Your task to perform on an android device: open chrome privacy settings Image 0: 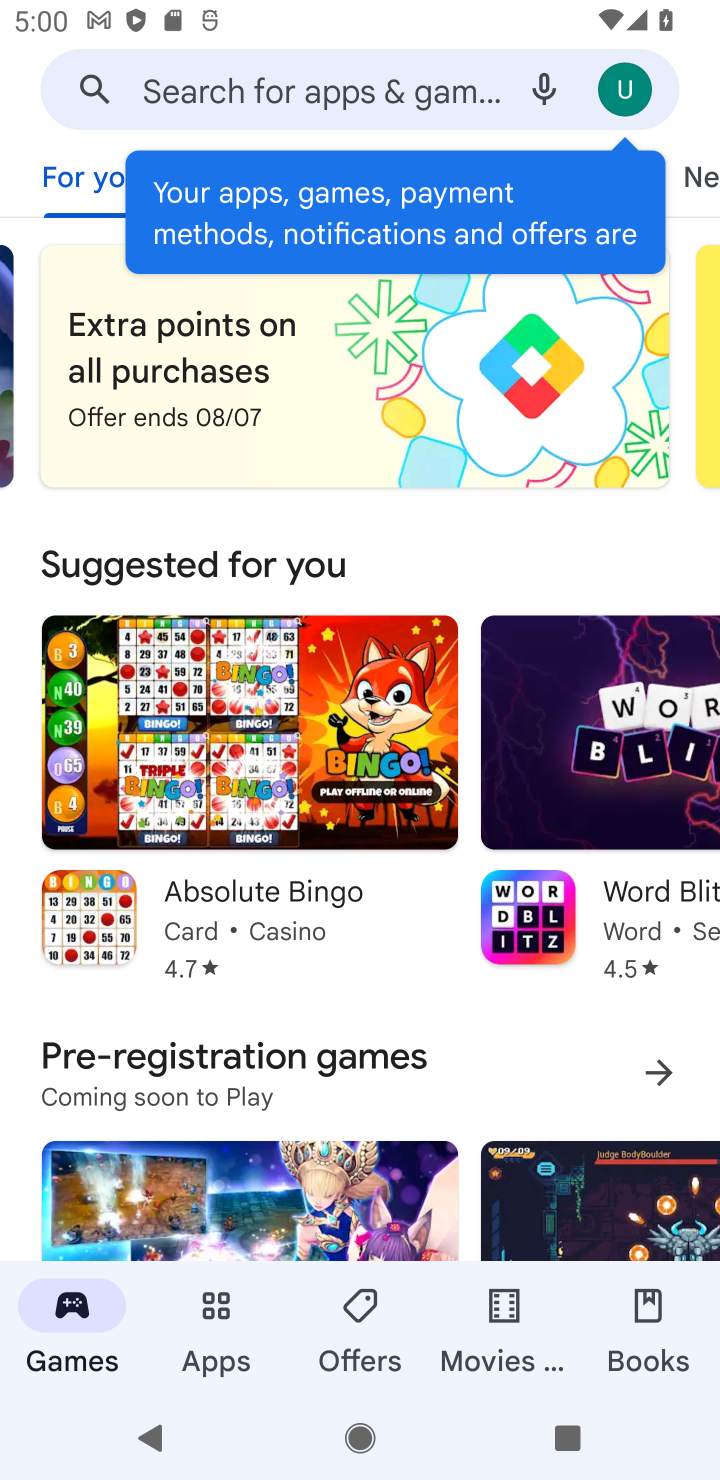
Step 0: press home button
Your task to perform on an android device: open chrome privacy settings Image 1: 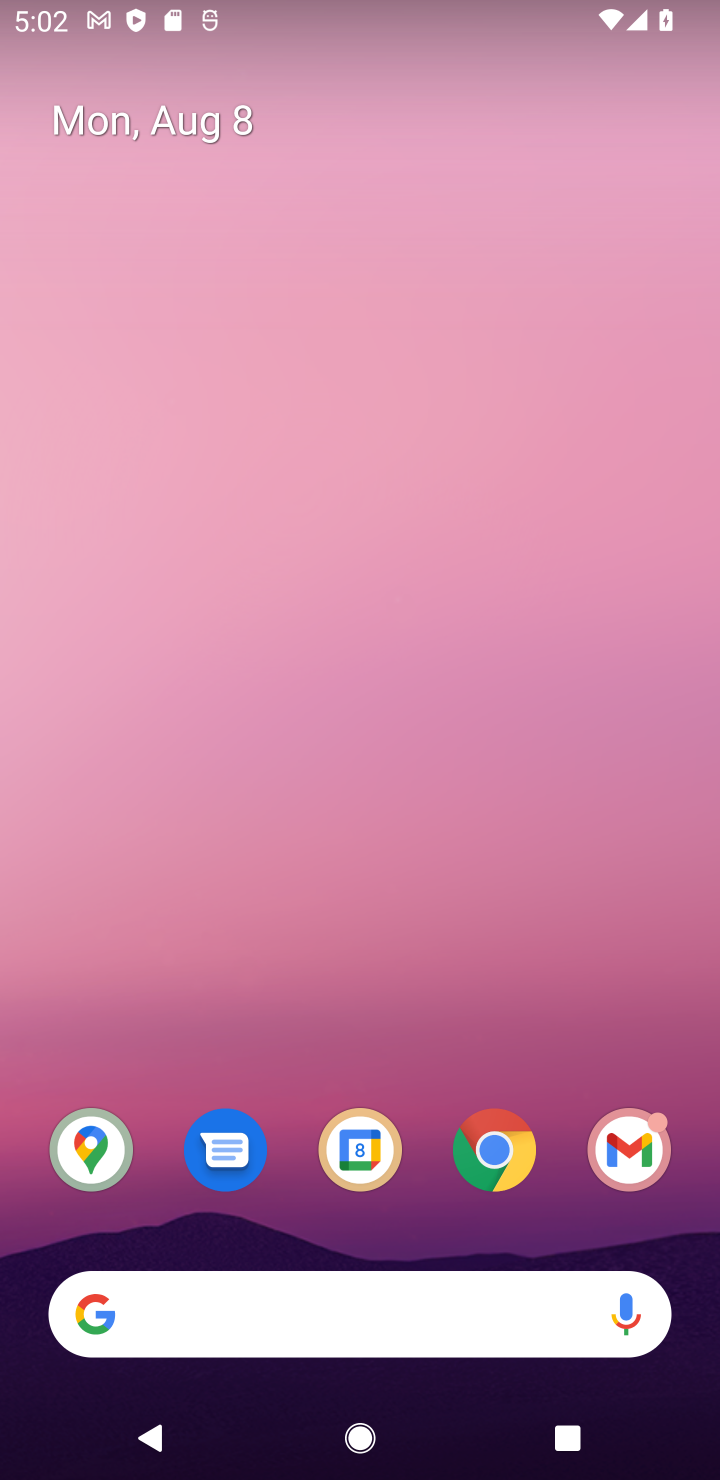
Step 1: click (493, 1174)
Your task to perform on an android device: open chrome privacy settings Image 2: 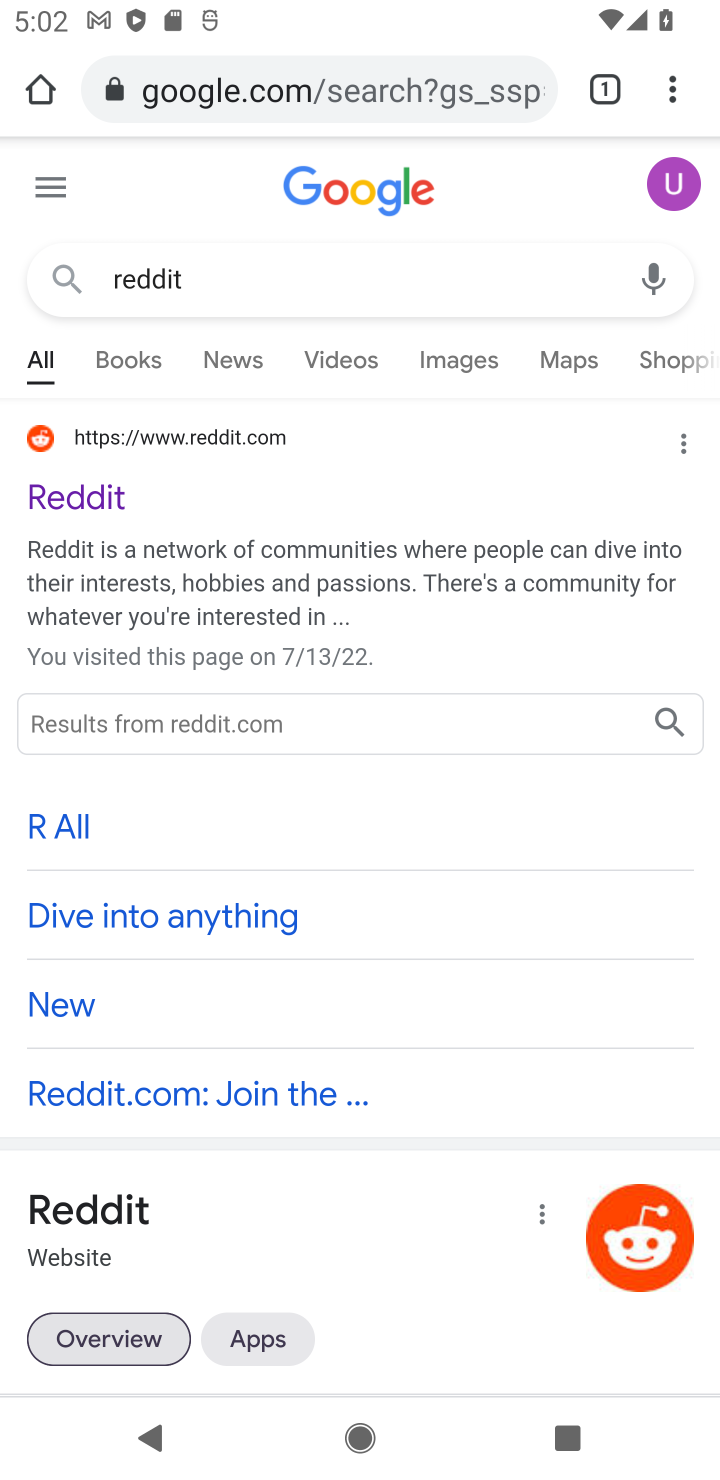
Step 2: click (670, 99)
Your task to perform on an android device: open chrome privacy settings Image 3: 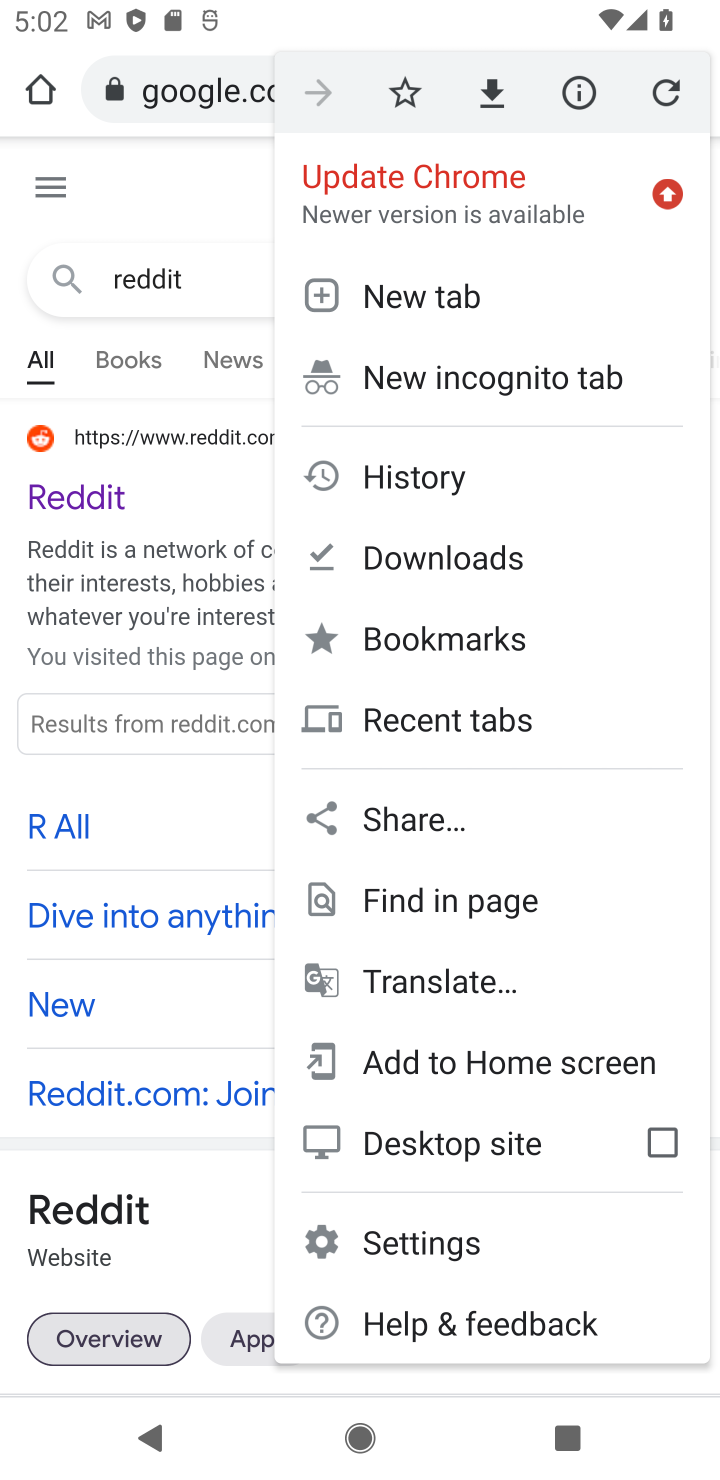
Step 3: click (496, 1222)
Your task to perform on an android device: open chrome privacy settings Image 4: 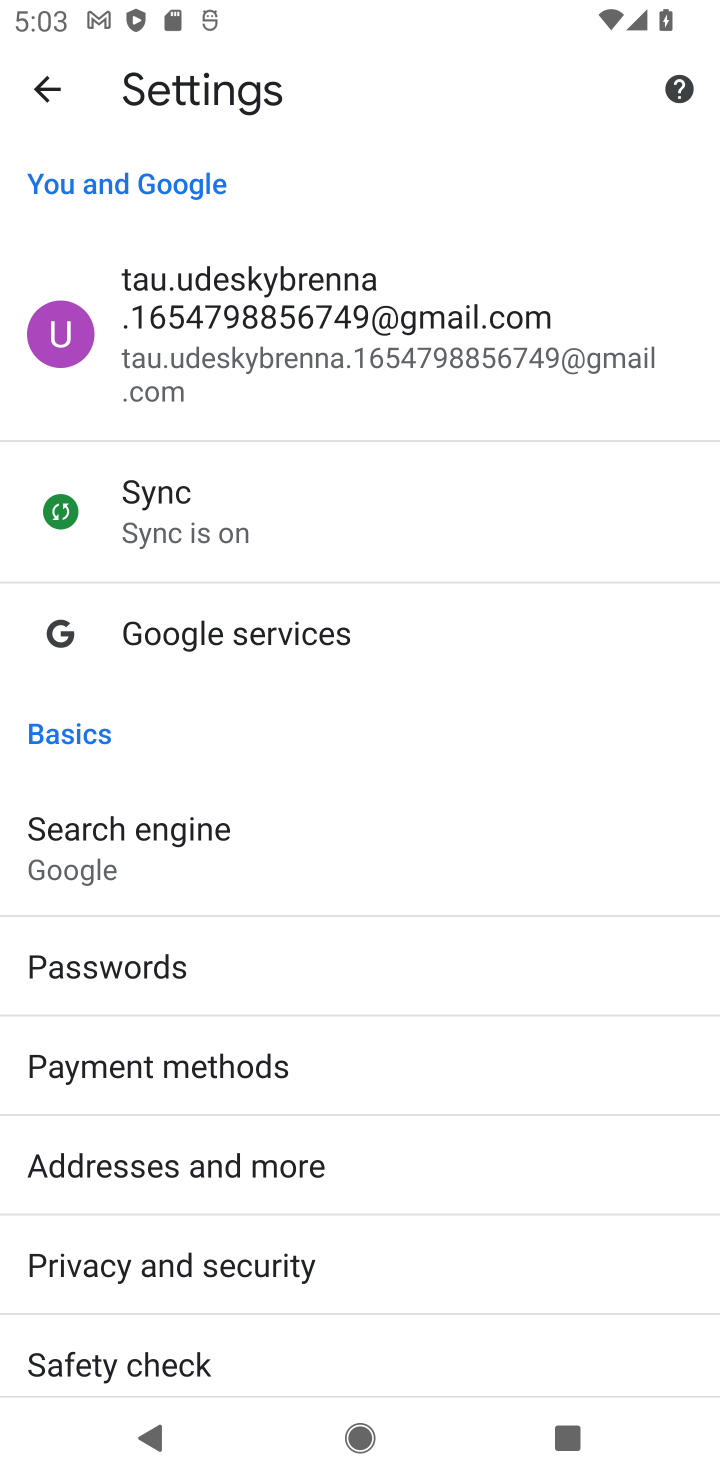
Step 4: click (373, 1222)
Your task to perform on an android device: open chrome privacy settings Image 5: 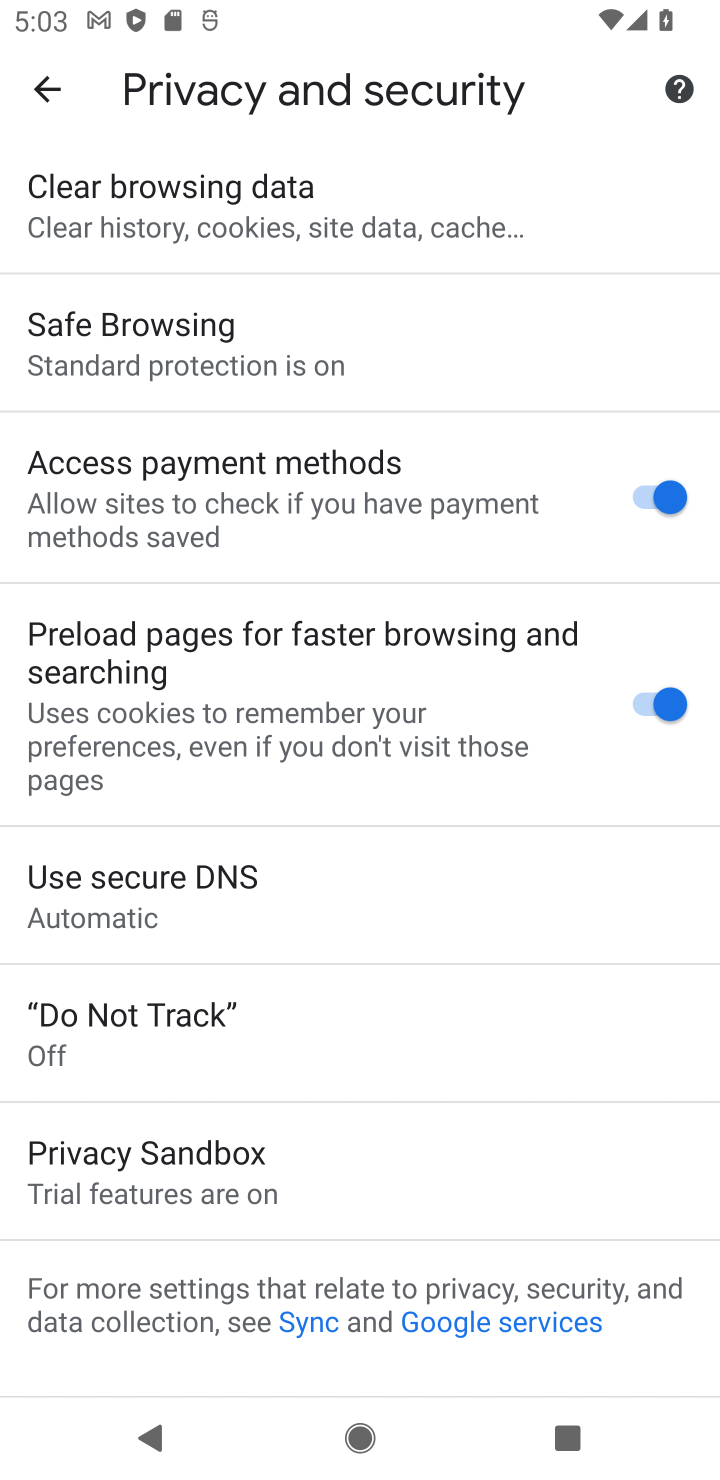
Step 5: task complete